Your task to perform on an android device: delete a single message in the gmail app Image 0: 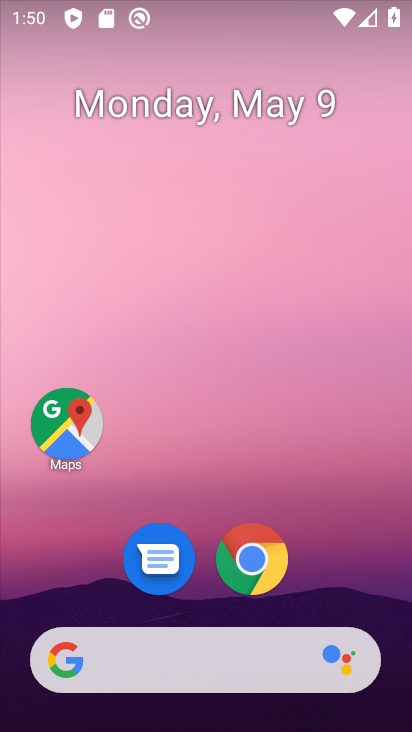
Step 0: drag from (362, 577) to (362, 158)
Your task to perform on an android device: delete a single message in the gmail app Image 1: 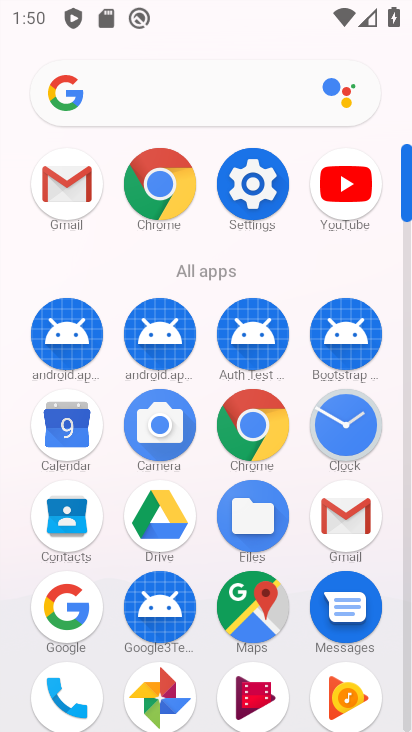
Step 1: click (63, 190)
Your task to perform on an android device: delete a single message in the gmail app Image 2: 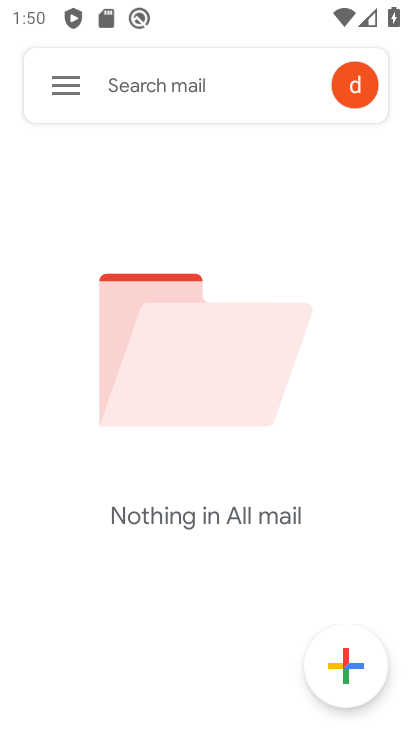
Step 2: click (68, 85)
Your task to perform on an android device: delete a single message in the gmail app Image 3: 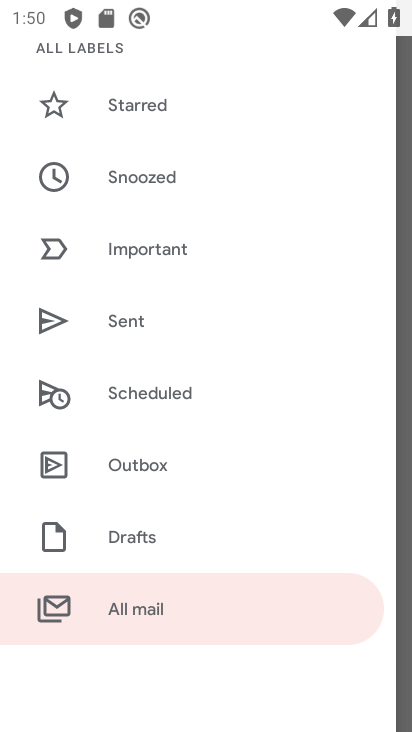
Step 3: click (155, 627)
Your task to perform on an android device: delete a single message in the gmail app Image 4: 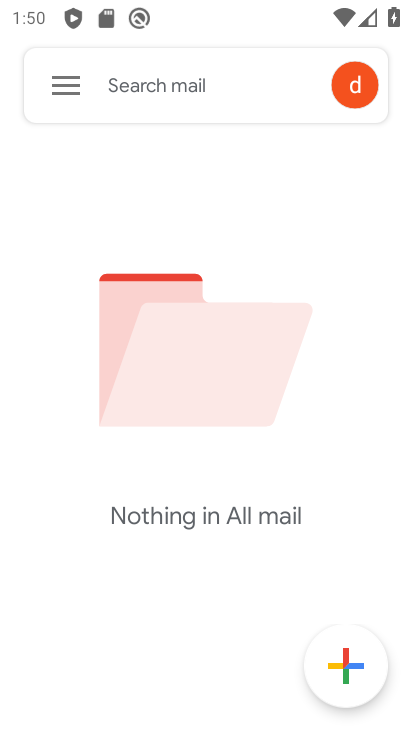
Step 4: task complete